Your task to perform on an android device: read, delete, or share a saved page in the chrome app Image 0: 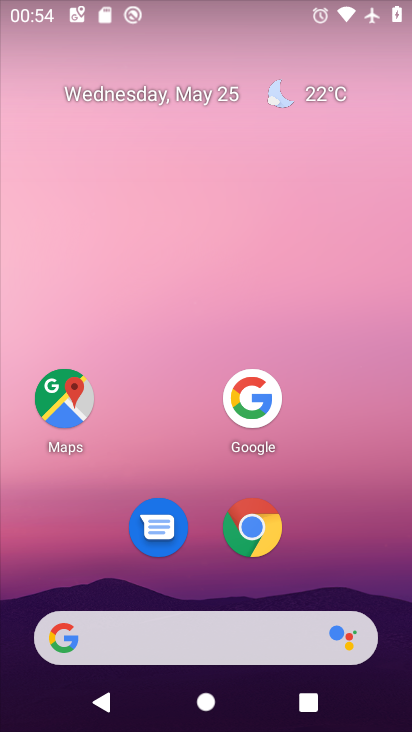
Step 0: press home button
Your task to perform on an android device: read, delete, or share a saved page in the chrome app Image 1: 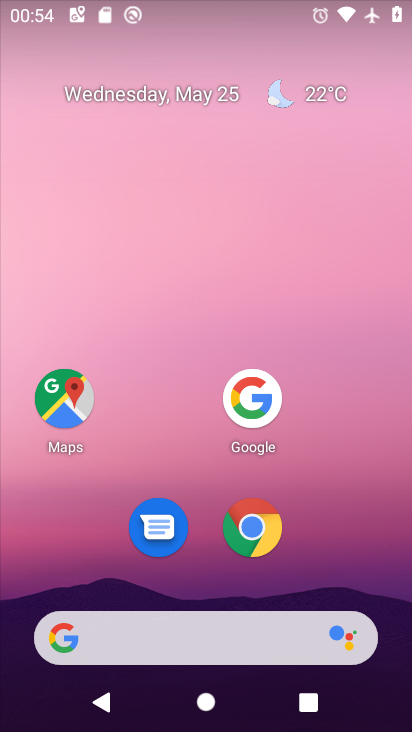
Step 1: click (250, 529)
Your task to perform on an android device: read, delete, or share a saved page in the chrome app Image 2: 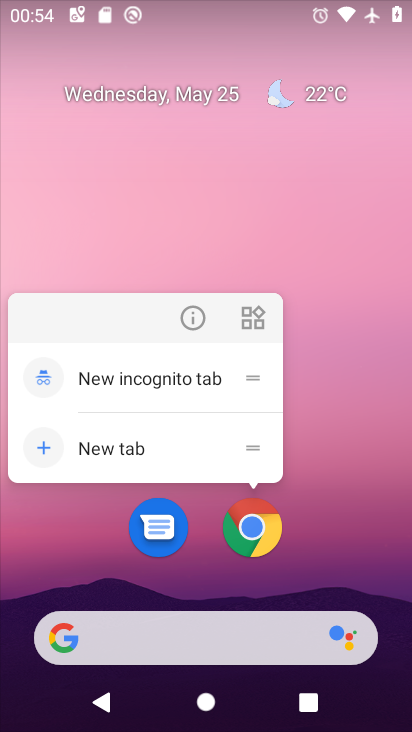
Step 2: click (249, 561)
Your task to perform on an android device: read, delete, or share a saved page in the chrome app Image 3: 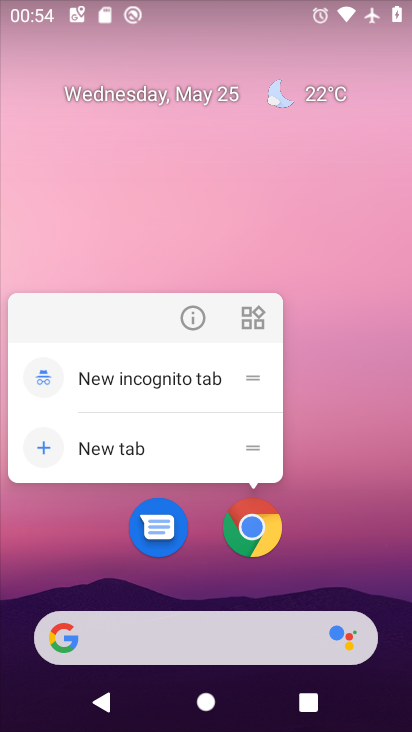
Step 3: click (265, 542)
Your task to perform on an android device: read, delete, or share a saved page in the chrome app Image 4: 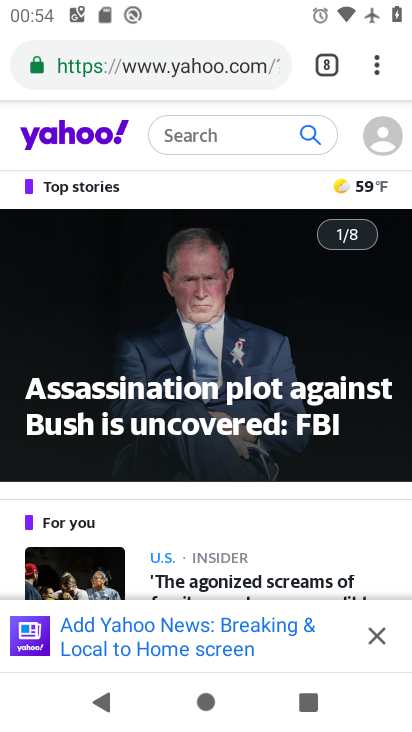
Step 4: drag from (377, 64) to (185, 424)
Your task to perform on an android device: read, delete, or share a saved page in the chrome app Image 5: 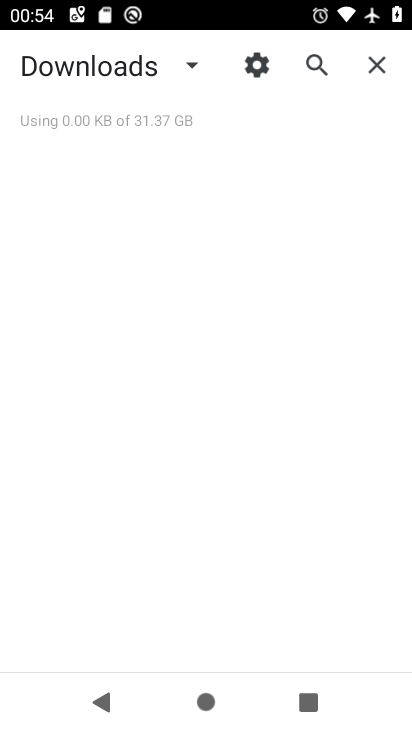
Step 5: click (176, 65)
Your task to perform on an android device: read, delete, or share a saved page in the chrome app Image 6: 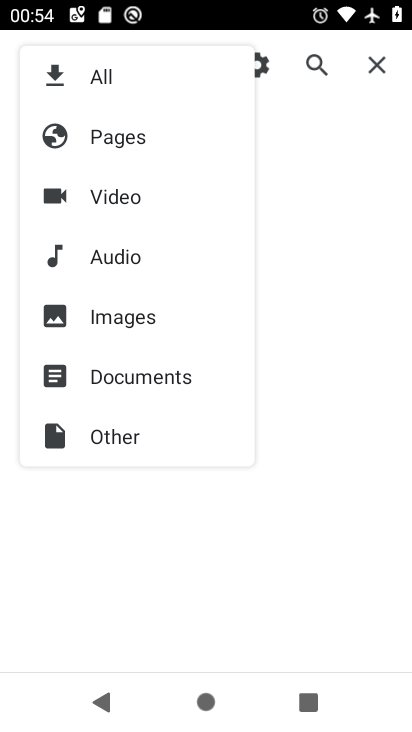
Step 6: click (127, 130)
Your task to perform on an android device: read, delete, or share a saved page in the chrome app Image 7: 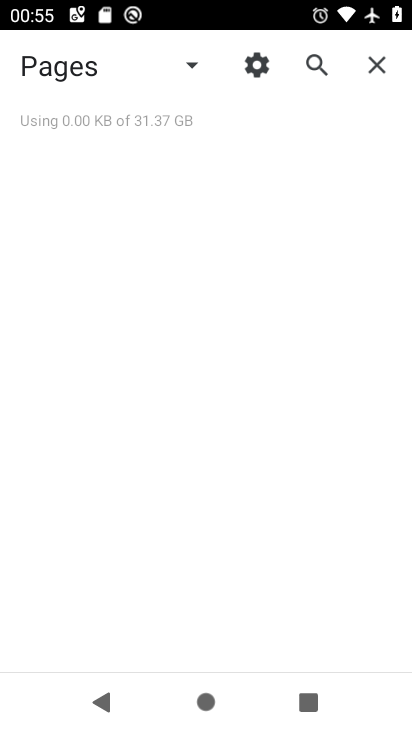
Step 7: task complete